Your task to perform on an android device: Go to Google Image 0: 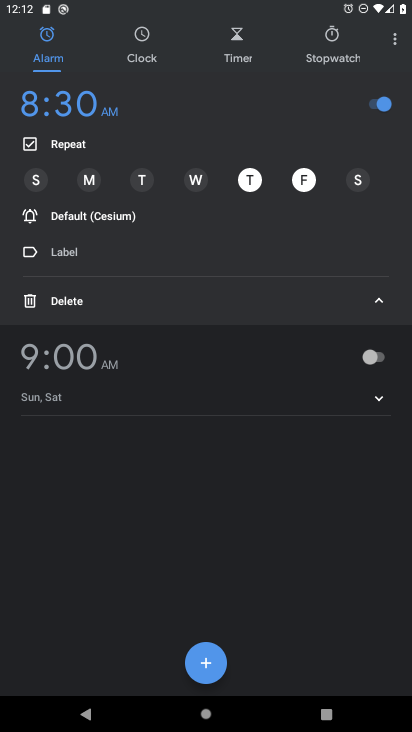
Step 0: press home button
Your task to perform on an android device: Go to Google Image 1: 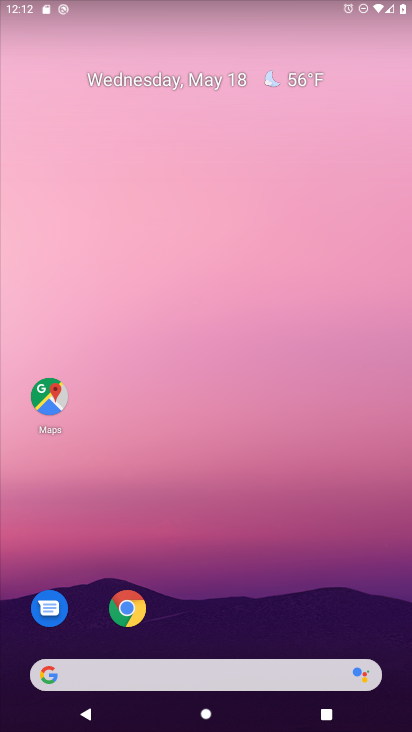
Step 1: drag from (190, 687) to (303, 161)
Your task to perform on an android device: Go to Google Image 2: 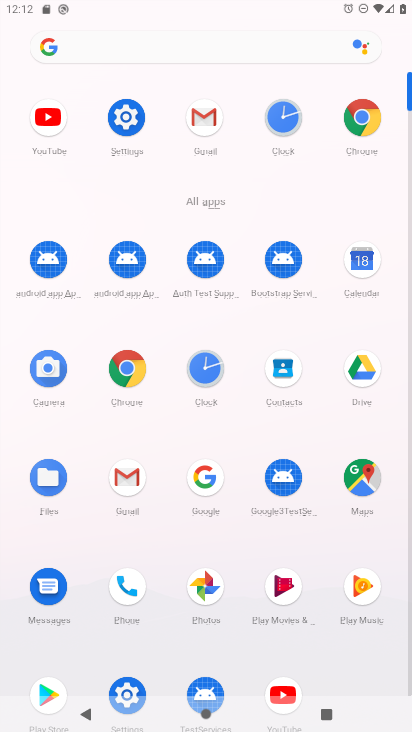
Step 2: click (43, 55)
Your task to perform on an android device: Go to Google Image 3: 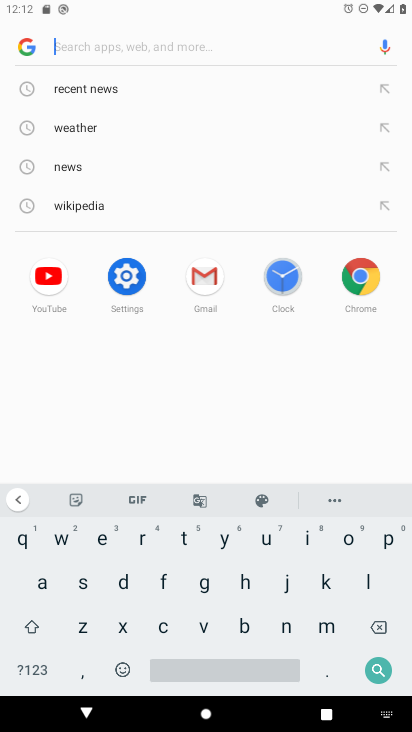
Step 3: click (31, 40)
Your task to perform on an android device: Go to Google Image 4: 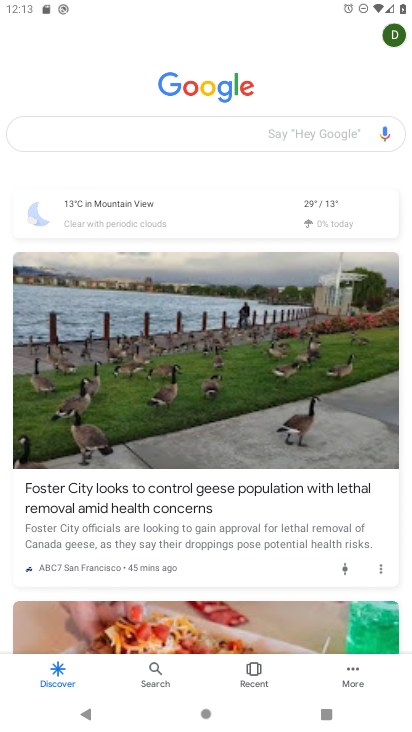
Step 4: task complete